Your task to perform on an android device: set the stopwatch Image 0: 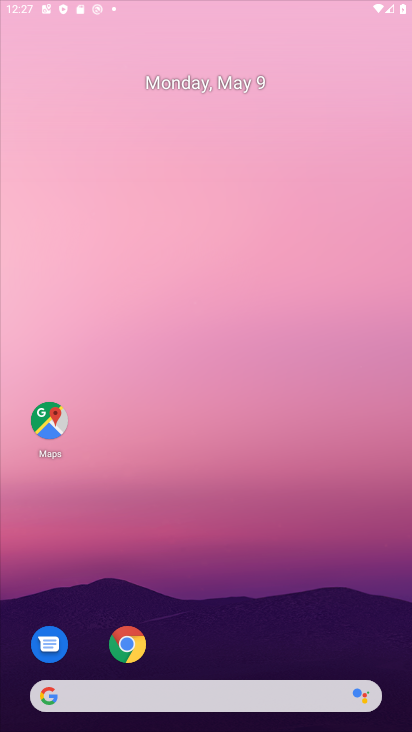
Step 0: drag from (60, 196) to (6, 74)
Your task to perform on an android device: set the stopwatch Image 1: 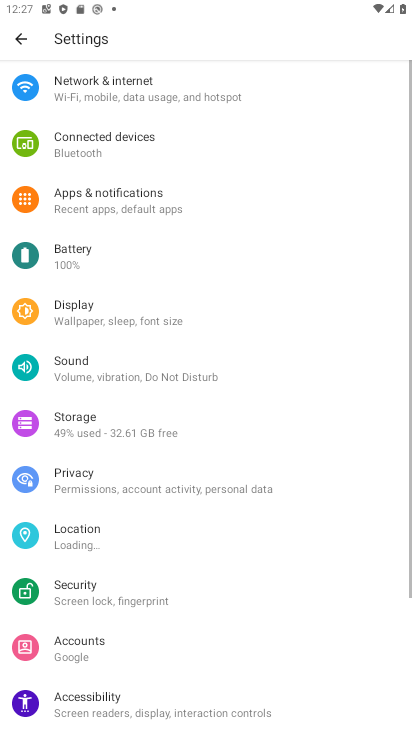
Step 1: press home button
Your task to perform on an android device: set the stopwatch Image 2: 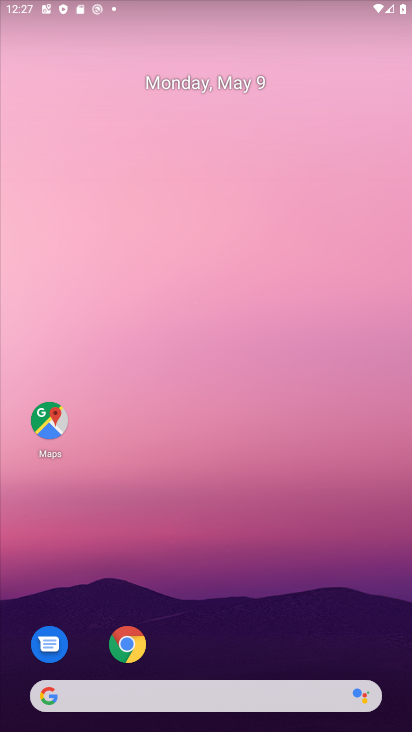
Step 2: drag from (309, 599) to (59, 67)
Your task to perform on an android device: set the stopwatch Image 3: 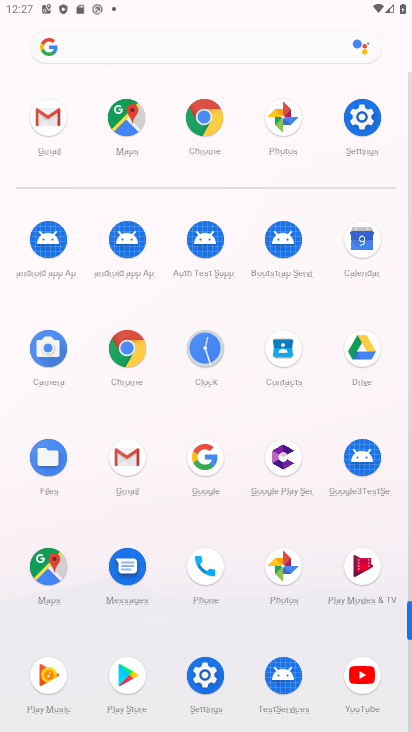
Step 3: click (195, 348)
Your task to perform on an android device: set the stopwatch Image 4: 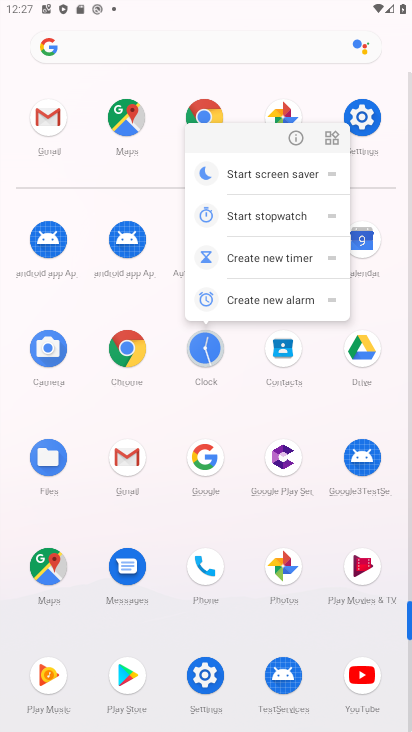
Step 4: click (201, 351)
Your task to perform on an android device: set the stopwatch Image 5: 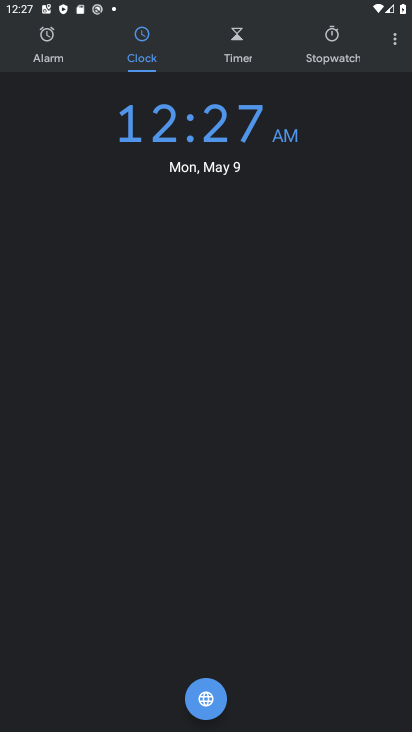
Step 5: click (324, 59)
Your task to perform on an android device: set the stopwatch Image 6: 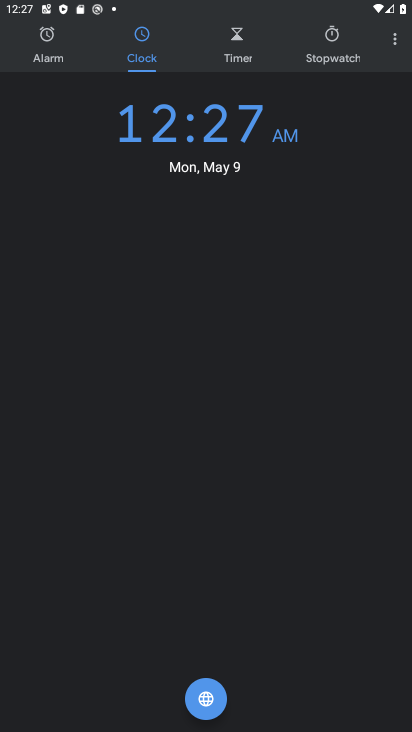
Step 6: click (324, 59)
Your task to perform on an android device: set the stopwatch Image 7: 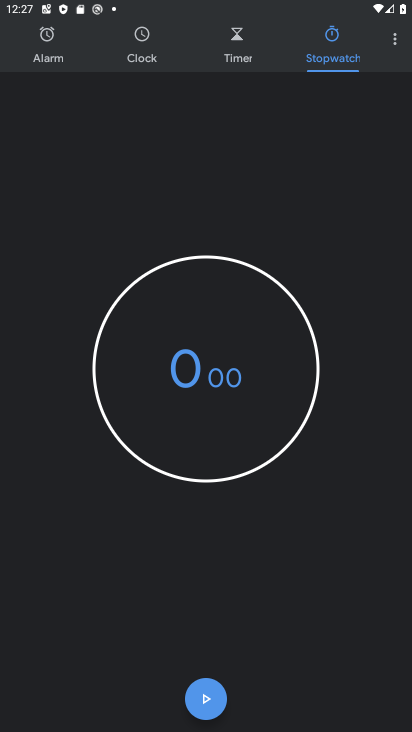
Step 7: click (204, 695)
Your task to perform on an android device: set the stopwatch Image 8: 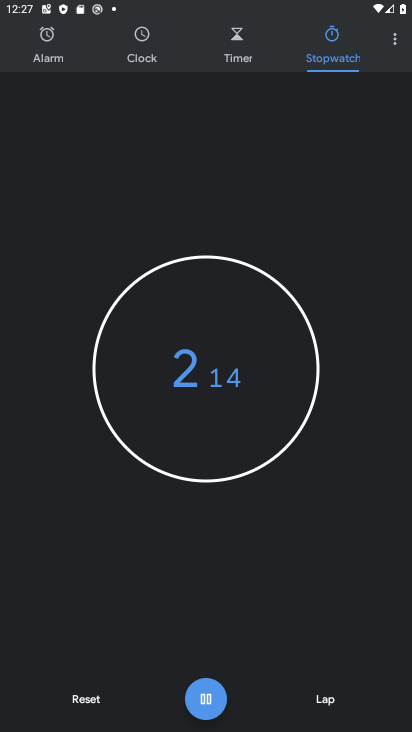
Step 8: click (208, 689)
Your task to perform on an android device: set the stopwatch Image 9: 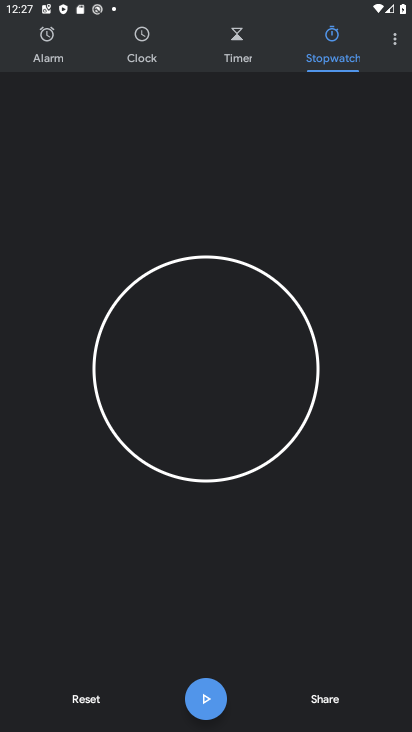
Step 9: task complete